Your task to perform on an android device: turn off notifications in google photos Image 0: 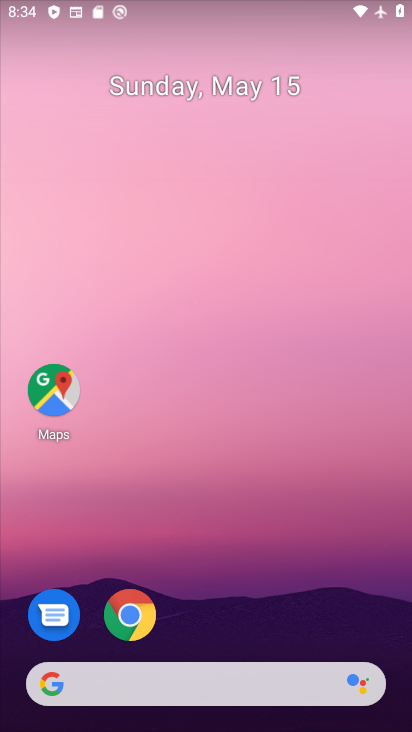
Step 0: drag from (156, 513) to (158, 376)
Your task to perform on an android device: turn off notifications in google photos Image 1: 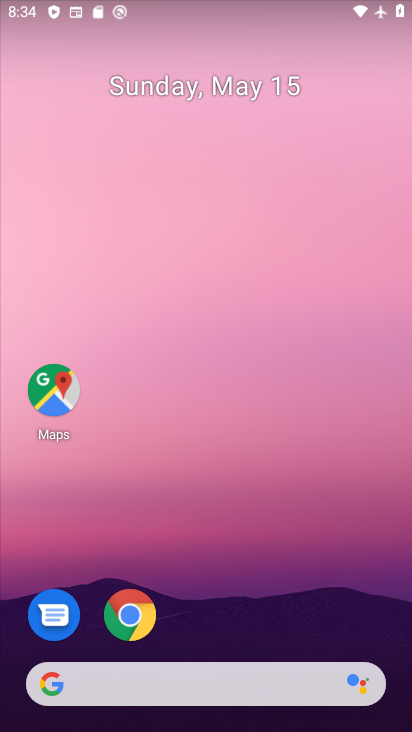
Step 1: drag from (206, 591) to (237, 255)
Your task to perform on an android device: turn off notifications in google photos Image 2: 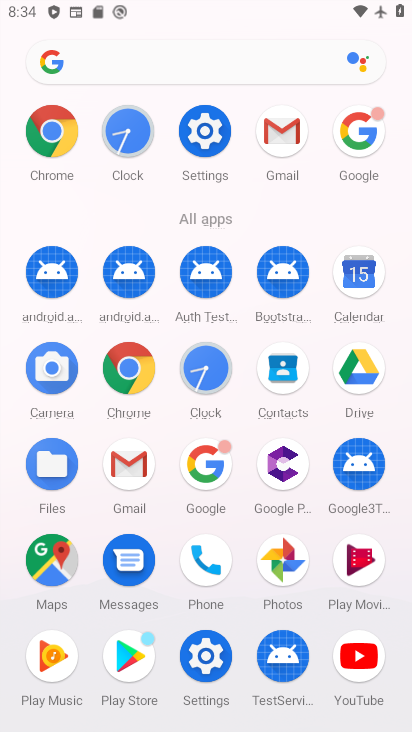
Step 2: click (288, 576)
Your task to perform on an android device: turn off notifications in google photos Image 3: 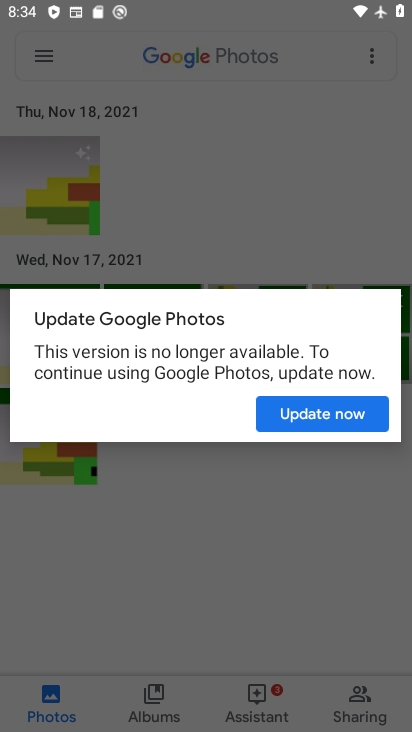
Step 3: click (314, 421)
Your task to perform on an android device: turn off notifications in google photos Image 4: 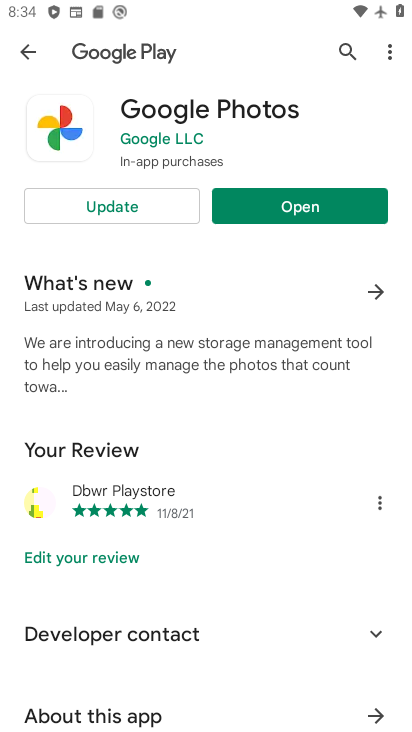
Step 4: click (102, 204)
Your task to perform on an android device: turn off notifications in google photos Image 5: 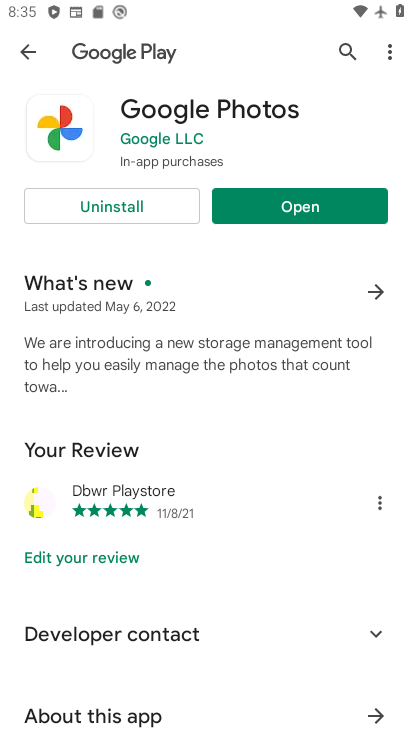
Step 5: click (243, 210)
Your task to perform on an android device: turn off notifications in google photos Image 6: 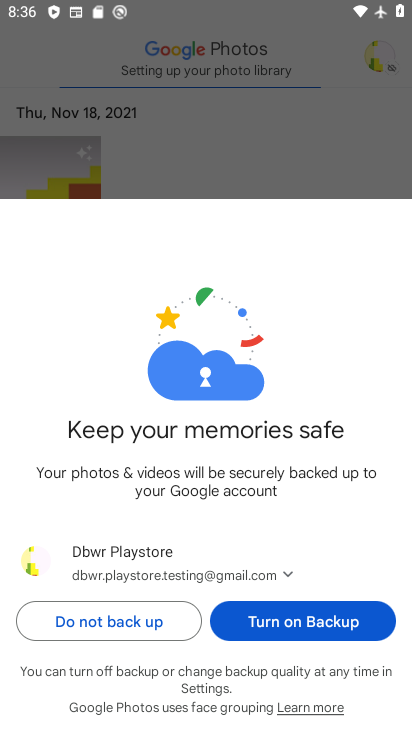
Step 6: click (269, 624)
Your task to perform on an android device: turn off notifications in google photos Image 7: 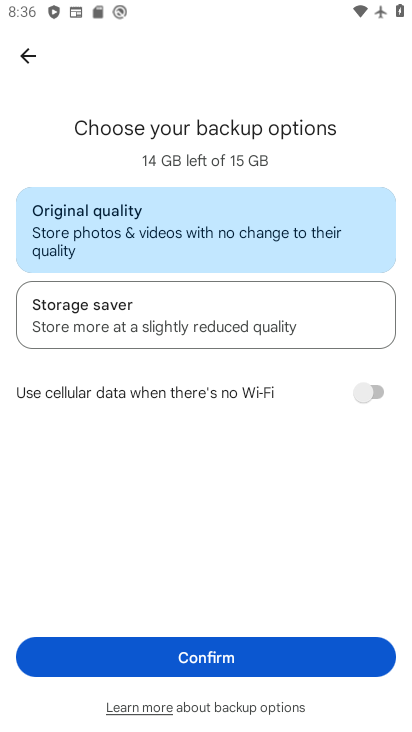
Step 7: click (217, 662)
Your task to perform on an android device: turn off notifications in google photos Image 8: 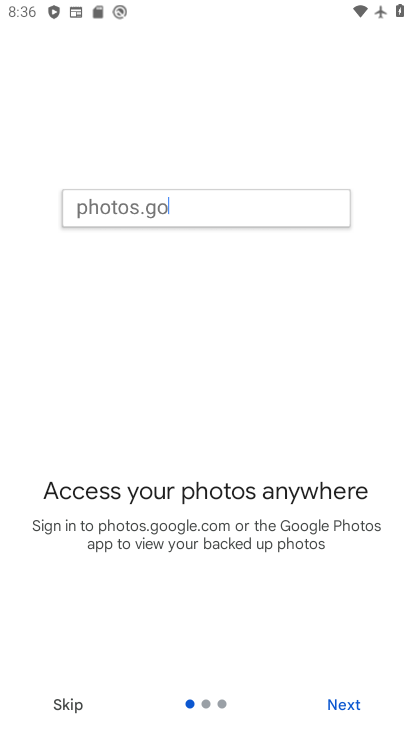
Step 8: click (360, 706)
Your task to perform on an android device: turn off notifications in google photos Image 9: 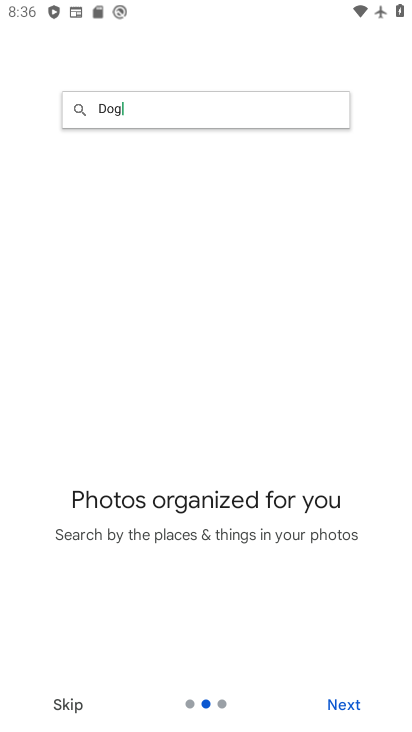
Step 9: click (360, 706)
Your task to perform on an android device: turn off notifications in google photos Image 10: 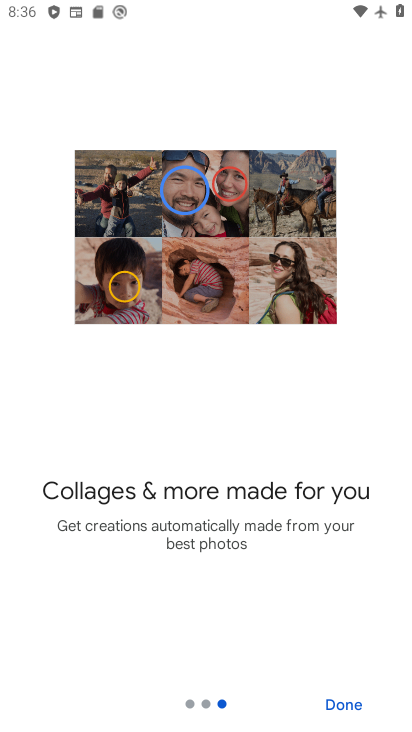
Step 10: click (360, 706)
Your task to perform on an android device: turn off notifications in google photos Image 11: 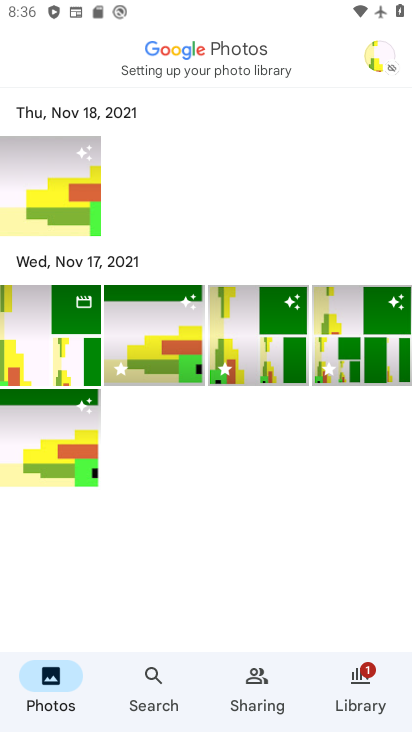
Step 11: click (379, 65)
Your task to perform on an android device: turn off notifications in google photos Image 12: 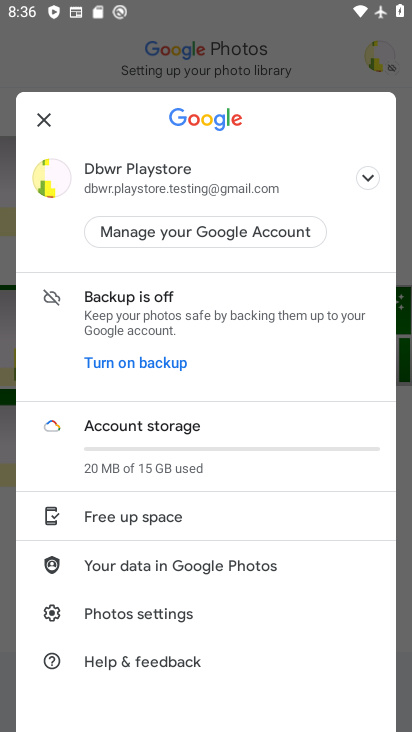
Step 12: click (134, 622)
Your task to perform on an android device: turn off notifications in google photos Image 13: 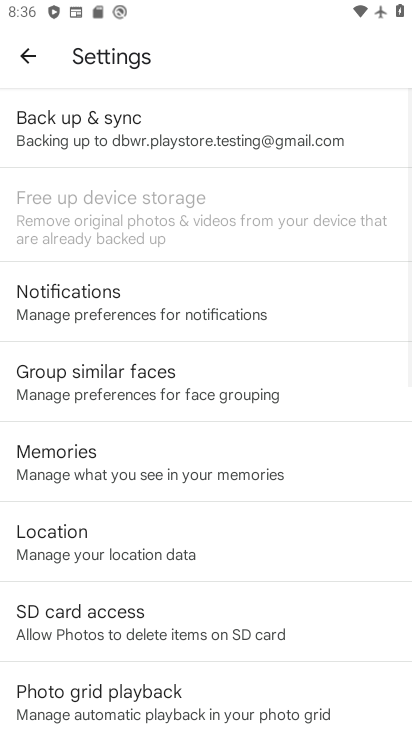
Step 13: click (113, 301)
Your task to perform on an android device: turn off notifications in google photos Image 14: 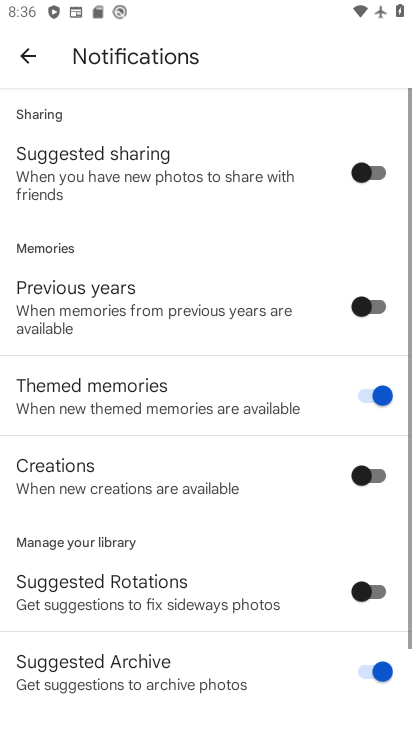
Step 14: drag from (138, 680) to (138, 236)
Your task to perform on an android device: turn off notifications in google photos Image 15: 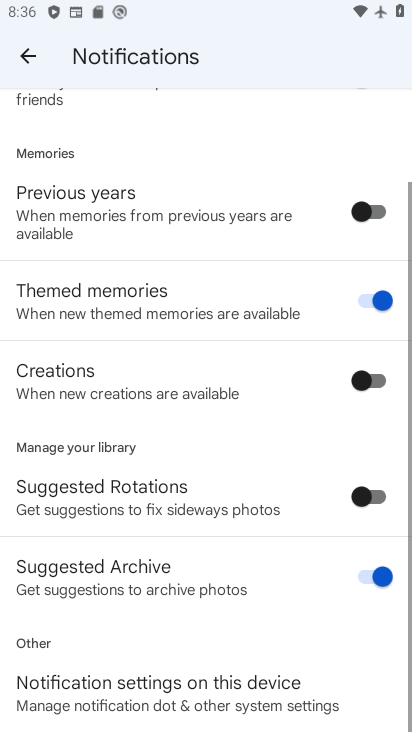
Step 15: click (117, 691)
Your task to perform on an android device: turn off notifications in google photos Image 16: 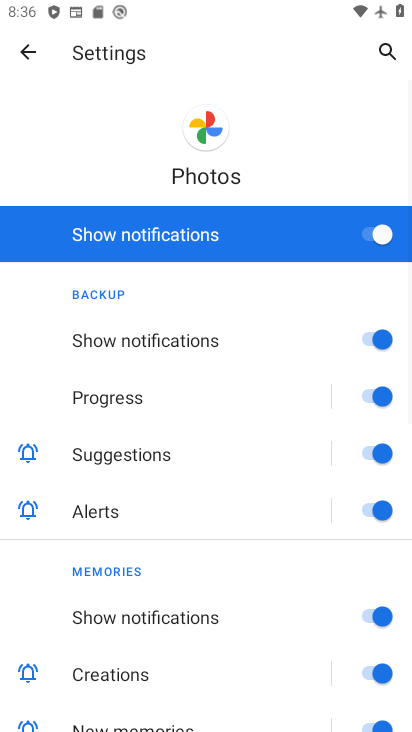
Step 16: click (367, 237)
Your task to perform on an android device: turn off notifications in google photos Image 17: 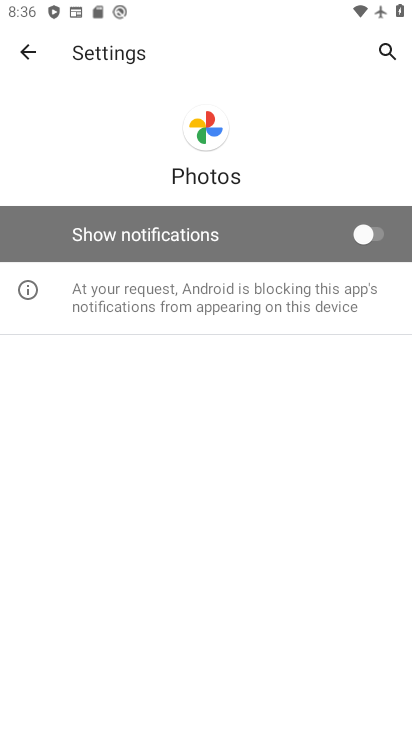
Step 17: task complete